Your task to perform on an android device: see tabs open on other devices in the chrome app Image 0: 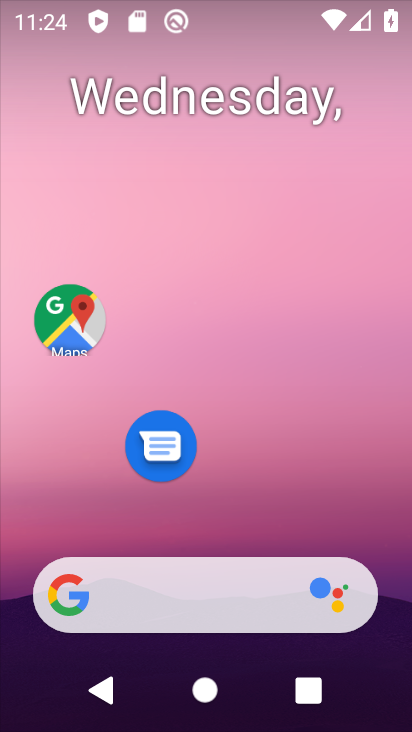
Step 0: drag from (223, 448) to (183, 135)
Your task to perform on an android device: see tabs open on other devices in the chrome app Image 1: 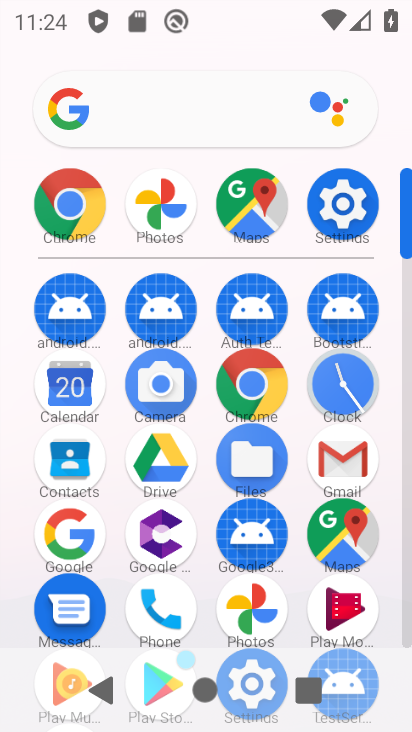
Step 1: click (255, 389)
Your task to perform on an android device: see tabs open on other devices in the chrome app Image 2: 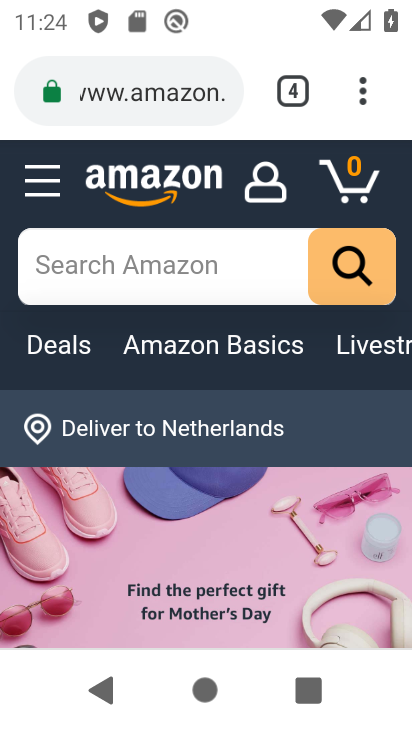
Step 2: drag from (365, 94) to (133, 429)
Your task to perform on an android device: see tabs open on other devices in the chrome app Image 3: 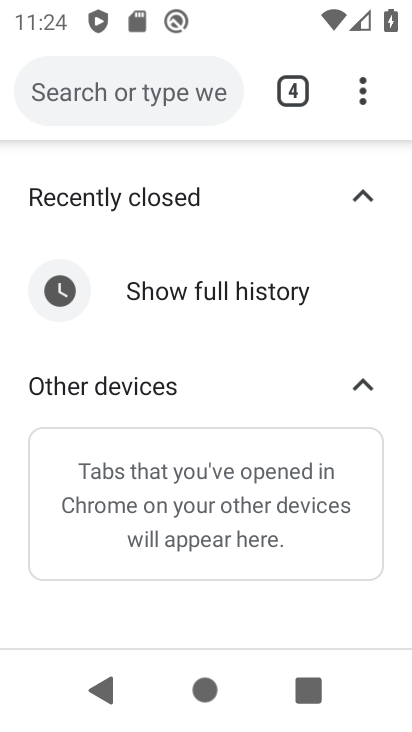
Step 3: click (93, 388)
Your task to perform on an android device: see tabs open on other devices in the chrome app Image 4: 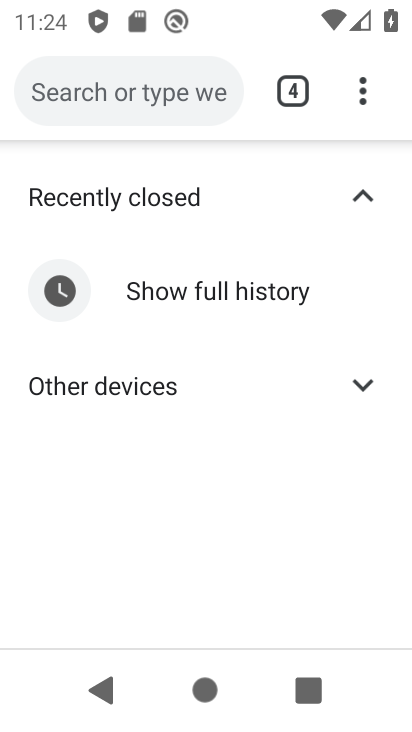
Step 4: click (93, 388)
Your task to perform on an android device: see tabs open on other devices in the chrome app Image 5: 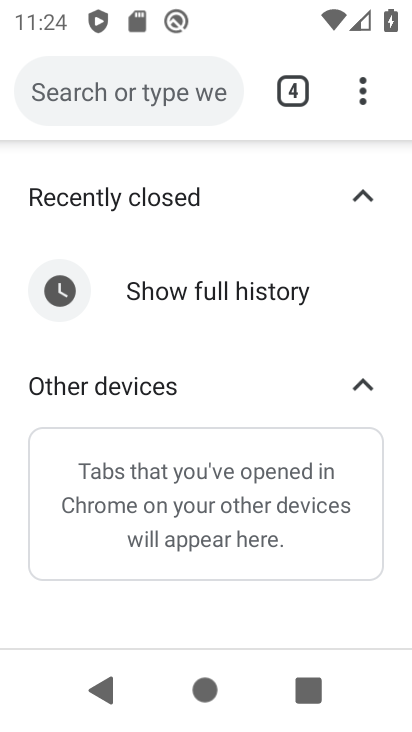
Step 5: task complete